Your task to perform on an android device: check battery use Image 0: 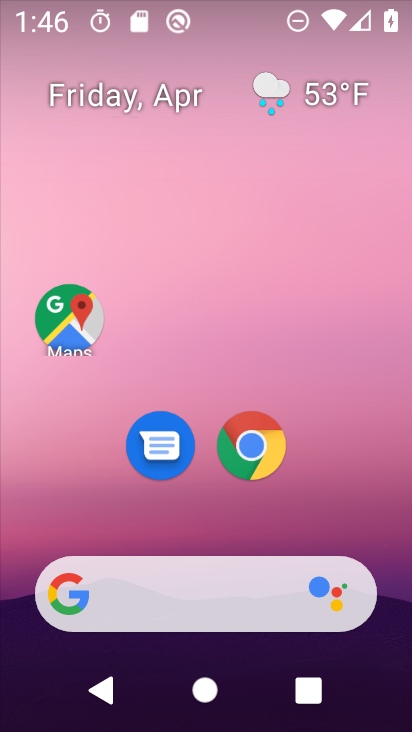
Step 0: drag from (375, 511) to (366, 130)
Your task to perform on an android device: check battery use Image 1: 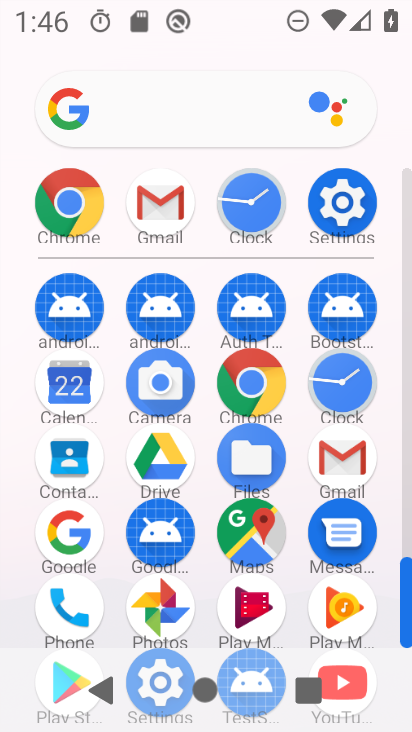
Step 1: click (360, 198)
Your task to perform on an android device: check battery use Image 2: 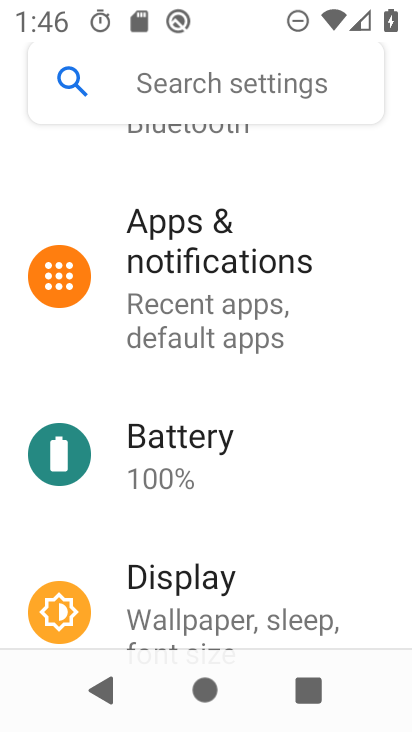
Step 2: drag from (355, 325) to (362, 460)
Your task to perform on an android device: check battery use Image 3: 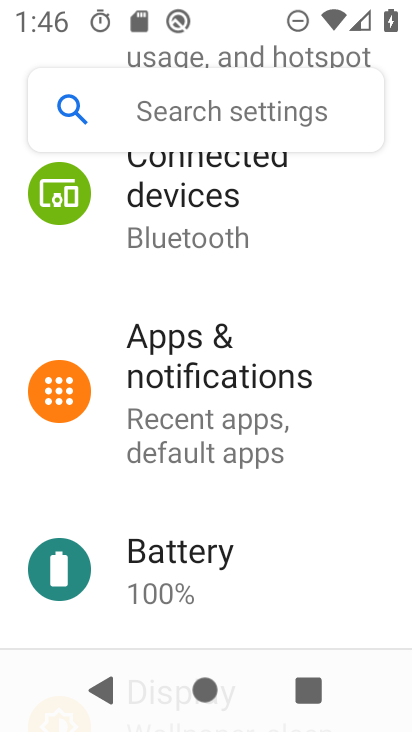
Step 3: drag from (362, 316) to (375, 465)
Your task to perform on an android device: check battery use Image 4: 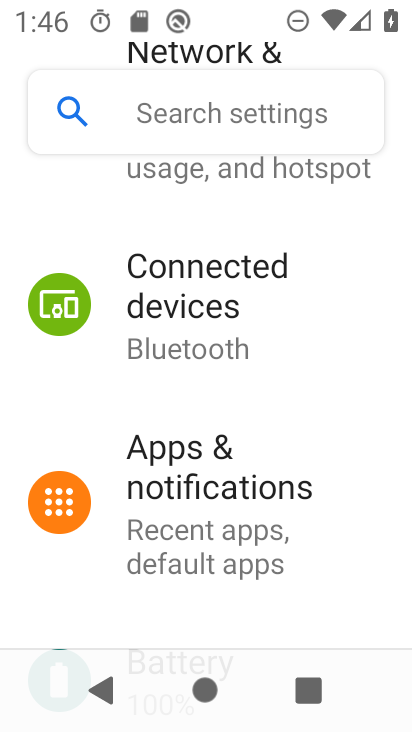
Step 4: drag from (367, 268) to (377, 427)
Your task to perform on an android device: check battery use Image 5: 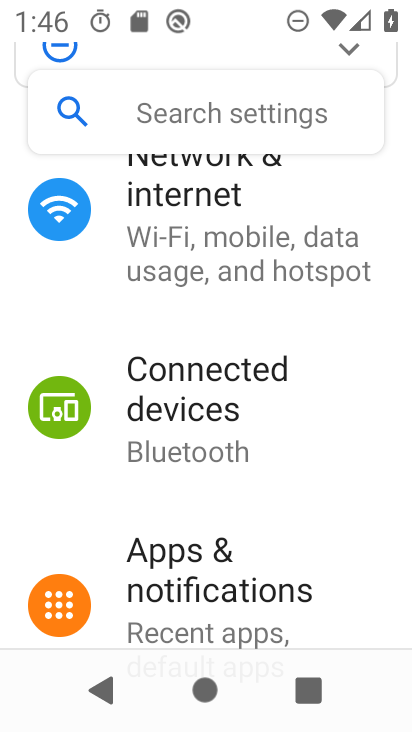
Step 5: drag from (373, 197) to (368, 394)
Your task to perform on an android device: check battery use Image 6: 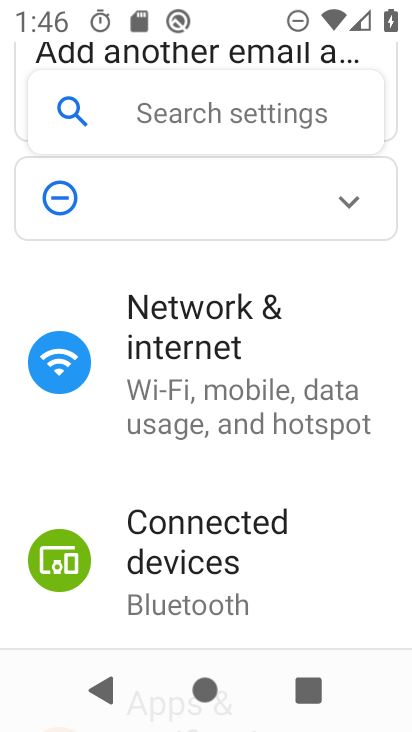
Step 6: drag from (318, 529) to (342, 370)
Your task to perform on an android device: check battery use Image 7: 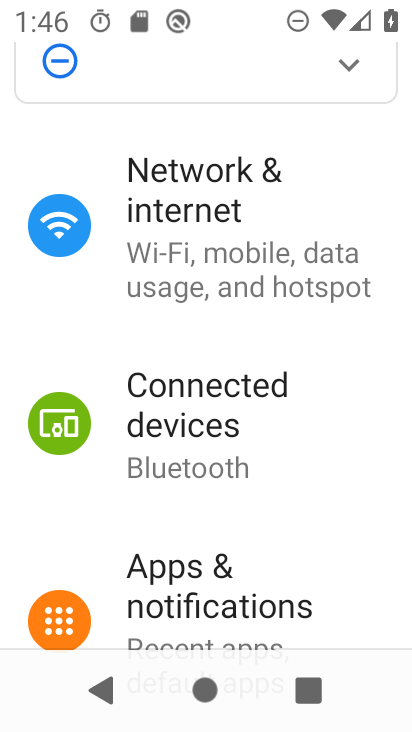
Step 7: drag from (332, 566) to (339, 399)
Your task to perform on an android device: check battery use Image 8: 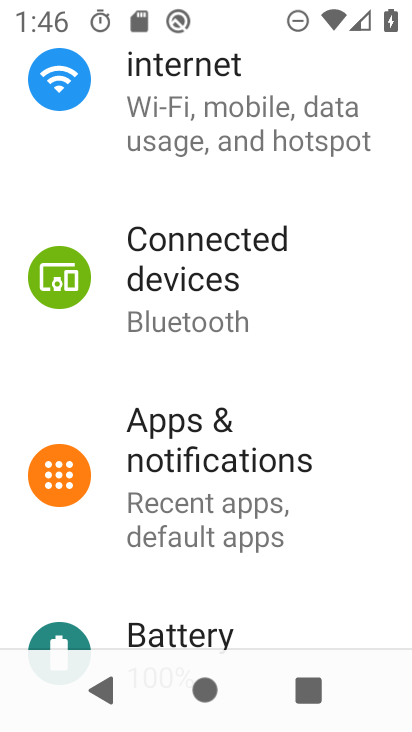
Step 8: drag from (345, 569) to (362, 421)
Your task to perform on an android device: check battery use Image 9: 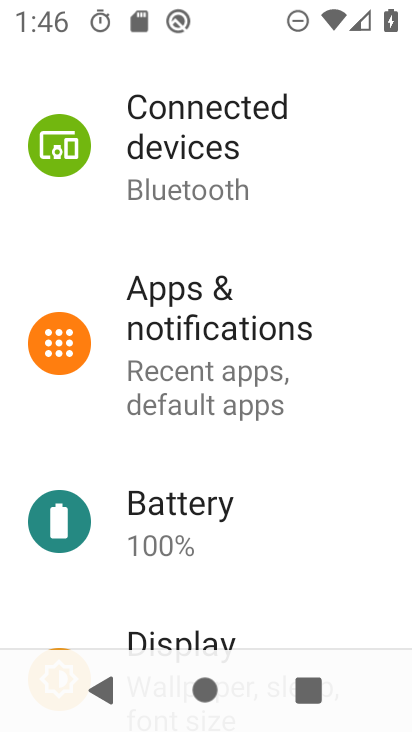
Step 9: drag from (326, 583) to (334, 430)
Your task to perform on an android device: check battery use Image 10: 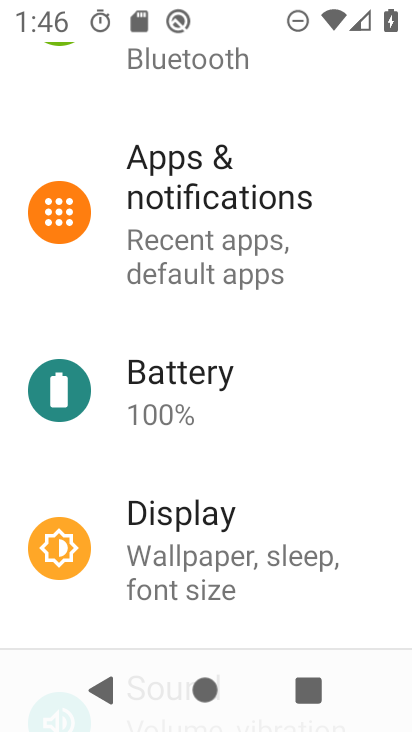
Step 10: click (219, 389)
Your task to perform on an android device: check battery use Image 11: 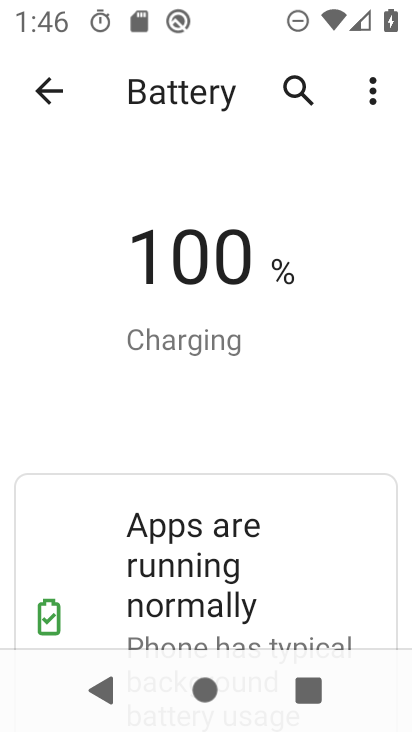
Step 11: click (373, 90)
Your task to perform on an android device: check battery use Image 12: 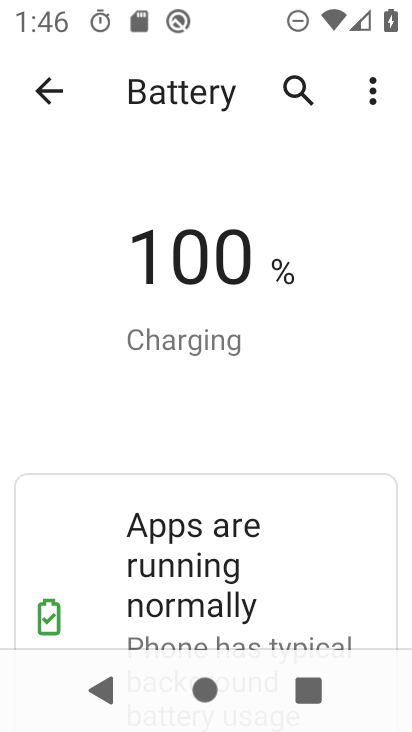
Step 12: click (373, 86)
Your task to perform on an android device: check battery use Image 13: 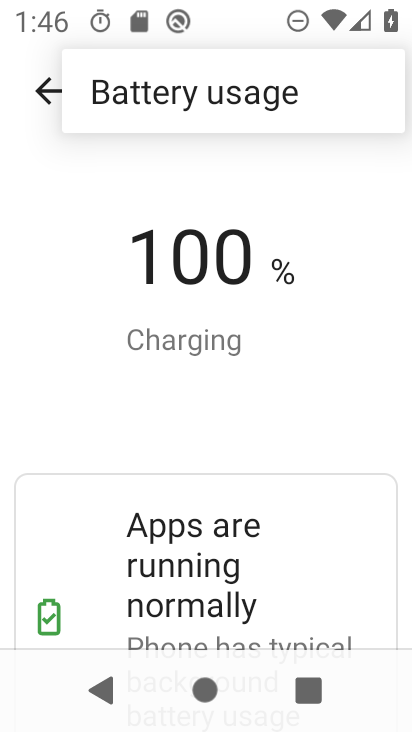
Step 13: click (321, 102)
Your task to perform on an android device: check battery use Image 14: 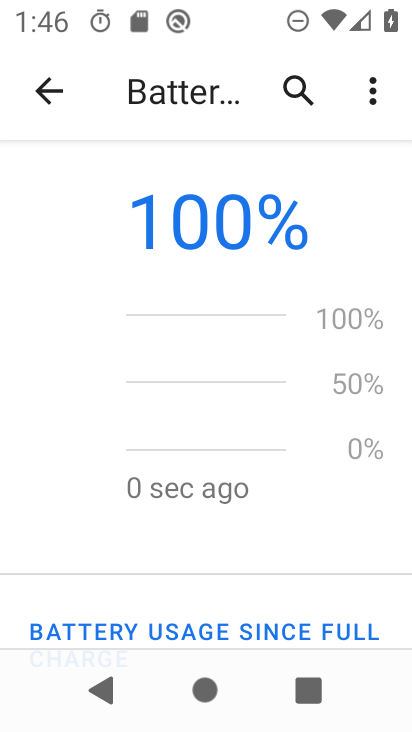
Step 14: task complete